Your task to perform on an android device: Open calendar and show me the second week of next month Image 0: 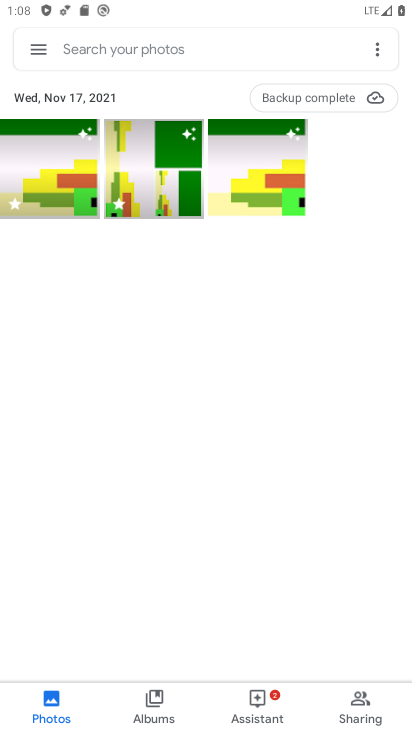
Step 0: press home button
Your task to perform on an android device: Open calendar and show me the second week of next month Image 1: 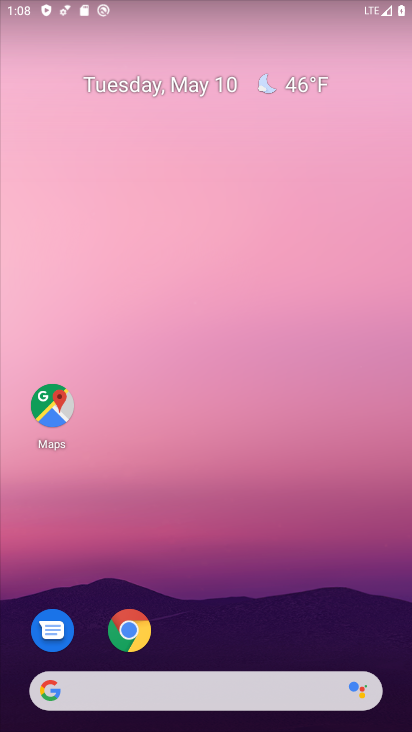
Step 1: drag from (228, 649) to (125, 1)
Your task to perform on an android device: Open calendar and show me the second week of next month Image 2: 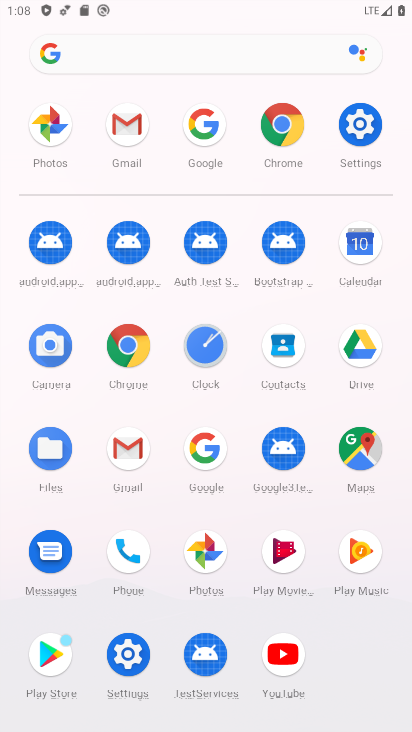
Step 2: click (356, 261)
Your task to perform on an android device: Open calendar and show me the second week of next month Image 3: 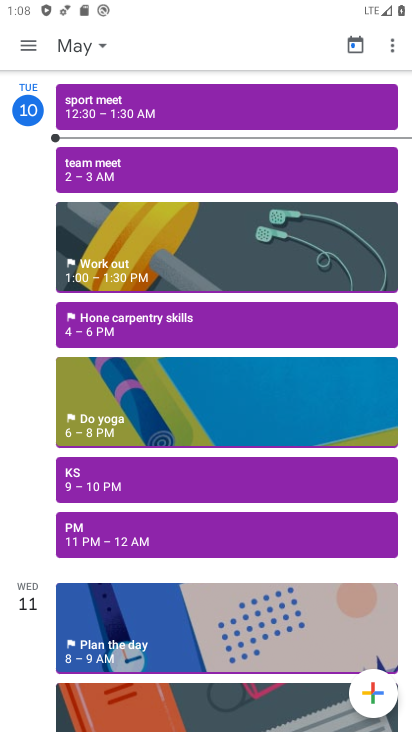
Step 3: click (30, 41)
Your task to perform on an android device: Open calendar and show me the second week of next month Image 4: 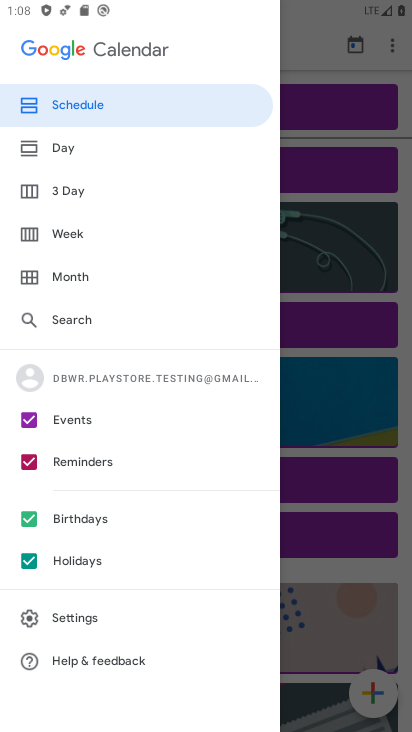
Step 4: click (74, 233)
Your task to perform on an android device: Open calendar and show me the second week of next month Image 5: 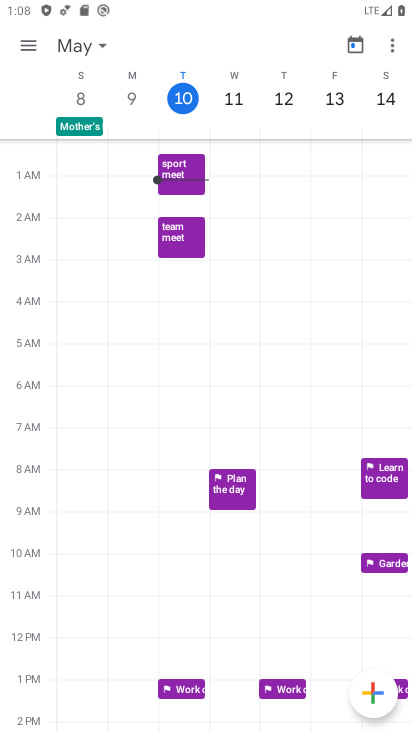
Step 5: task complete